Your task to perform on an android device: delete a single message in the gmail app Image 0: 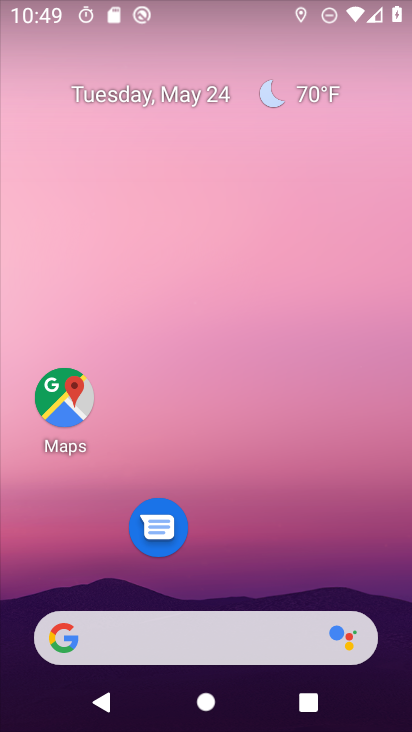
Step 0: drag from (254, 536) to (302, 77)
Your task to perform on an android device: delete a single message in the gmail app Image 1: 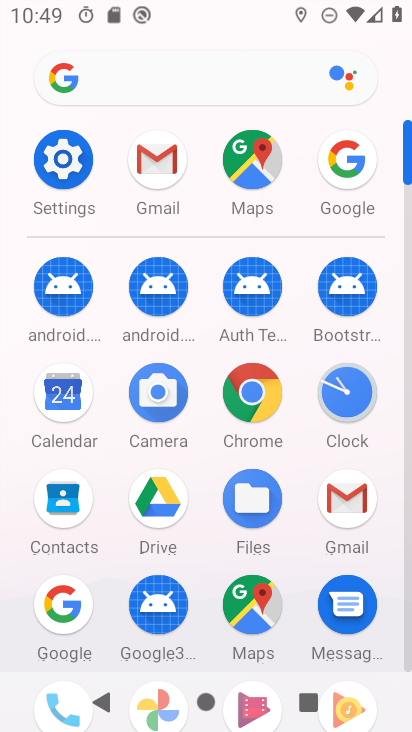
Step 1: click (156, 160)
Your task to perform on an android device: delete a single message in the gmail app Image 2: 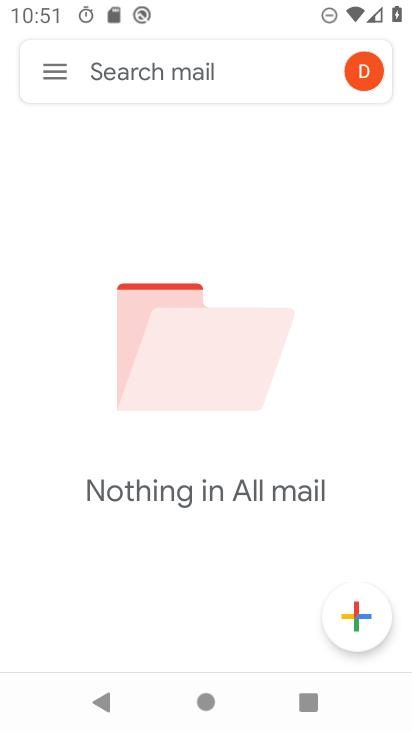
Step 2: task complete